Your task to perform on an android device: Check the weather Image 0: 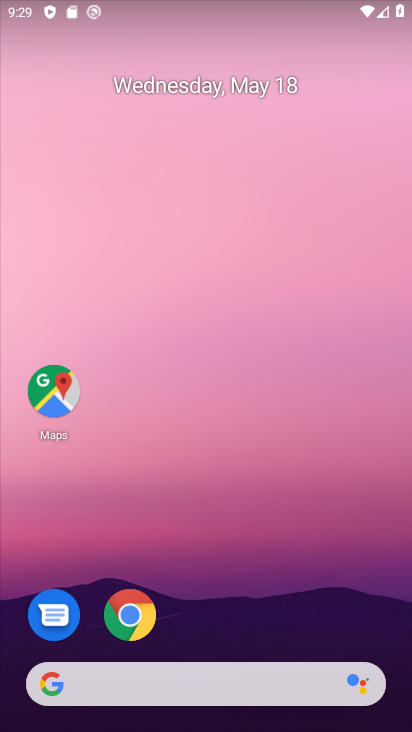
Step 0: drag from (238, 601) to (288, 18)
Your task to perform on an android device: Check the weather Image 1: 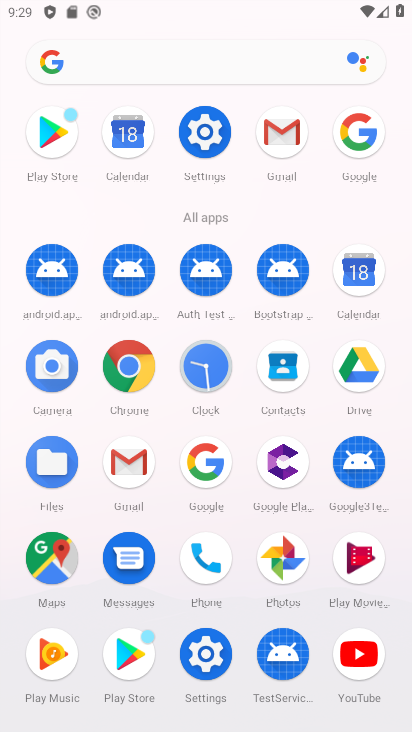
Step 1: click (216, 462)
Your task to perform on an android device: Check the weather Image 2: 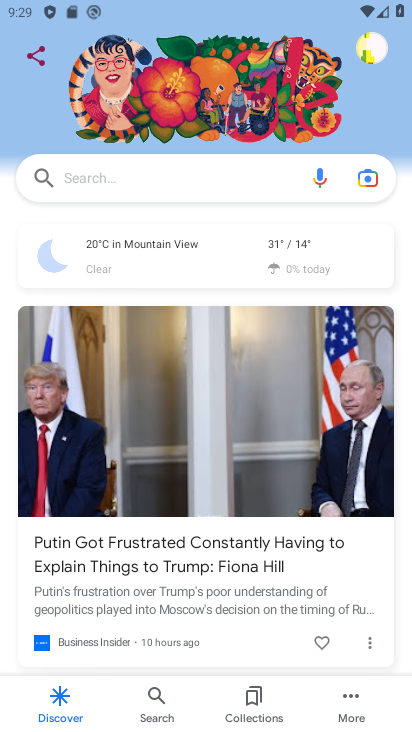
Step 2: click (115, 178)
Your task to perform on an android device: Check the weather Image 3: 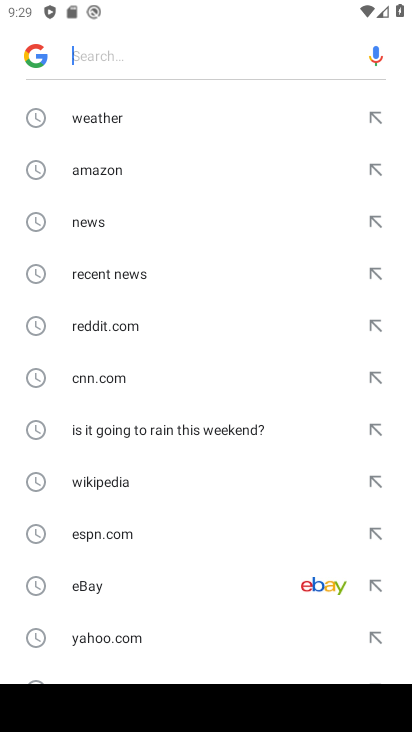
Step 3: click (113, 121)
Your task to perform on an android device: Check the weather Image 4: 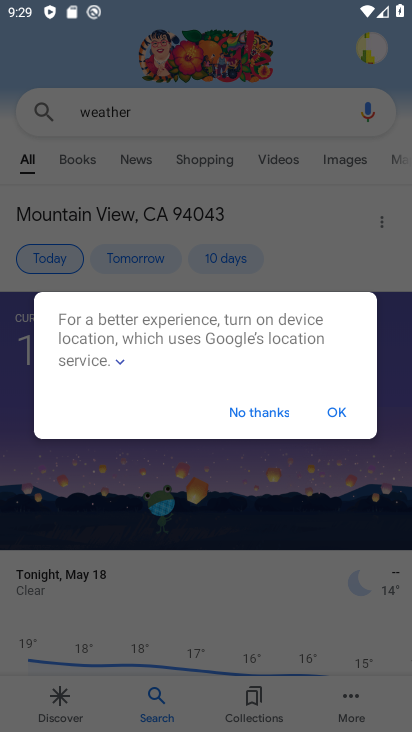
Step 4: click (277, 413)
Your task to perform on an android device: Check the weather Image 5: 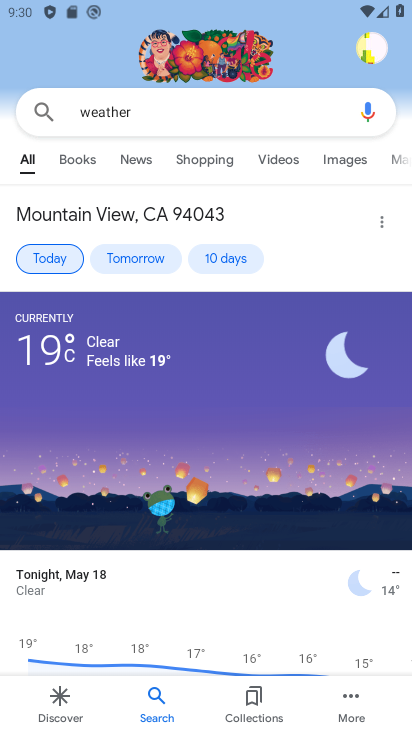
Step 5: task complete